Your task to perform on an android device: set an alarm Image 0: 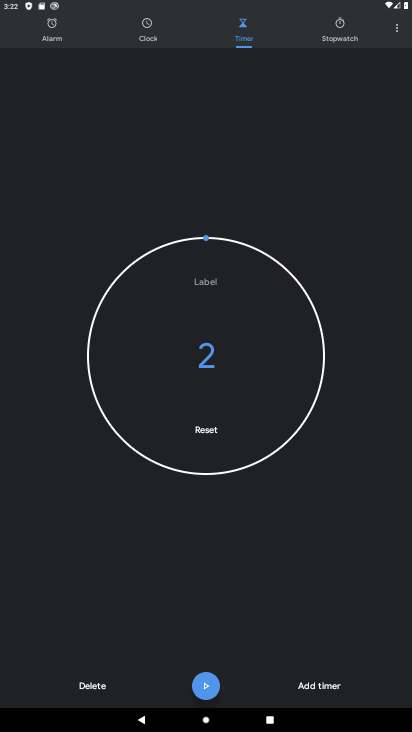
Step 0: click (51, 25)
Your task to perform on an android device: set an alarm Image 1: 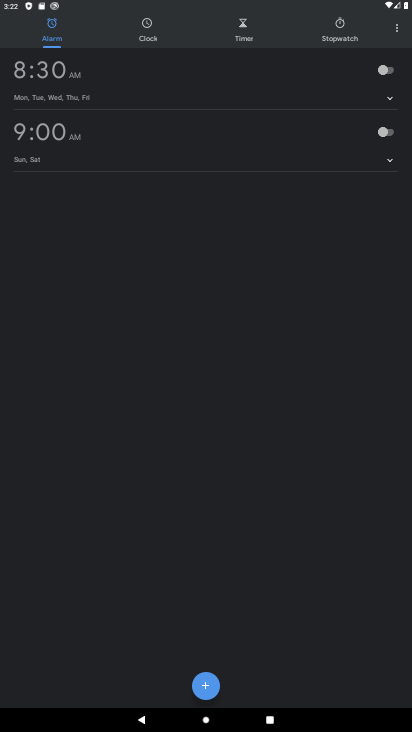
Step 1: click (208, 690)
Your task to perform on an android device: set an alarm Image 2: 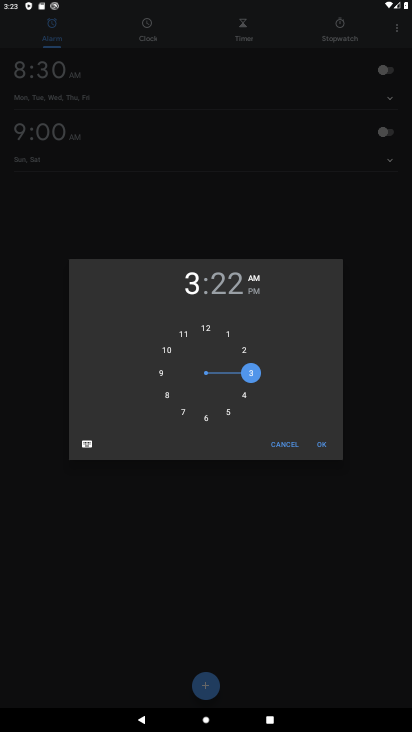
Step 2: click (326, 442)
Your task to perform on an android device: set an alarm Image 3: 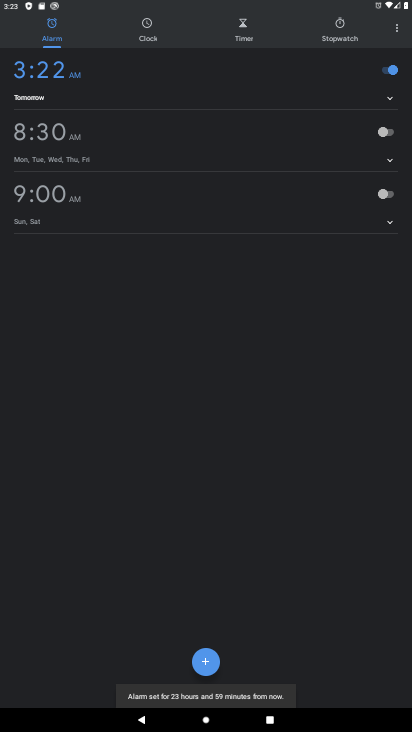
Step 3: task complete